Your task to perform on an android device: Go to network settings Image 0: 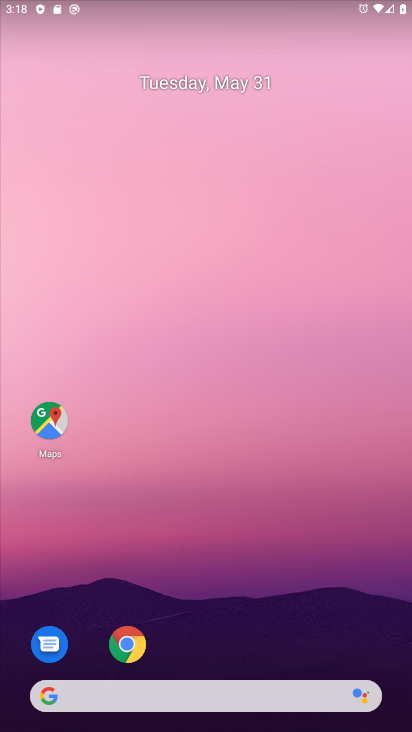
Step 0: drag from (357, 603) to (321, 129)
Your task to perform on an android device: Go to network settings Image 1: 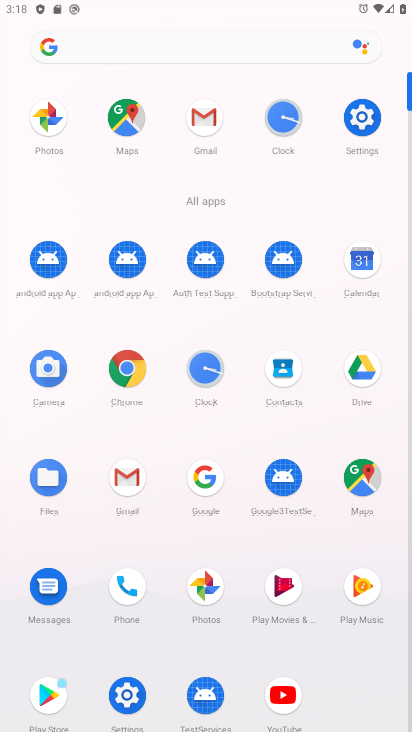
Step 1: click (358, 128)
Your task to perform on an android device: Go to network settings Image 2: 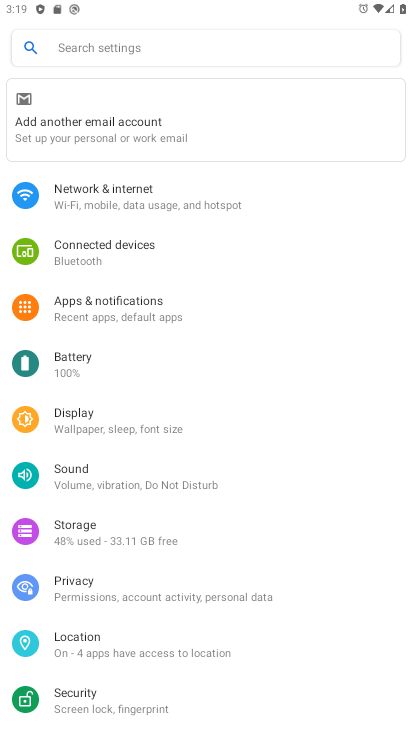
Step 2: drag from (148, 621) to (125, 495)
Your task to perform on an android device: Go to network settings Image 3: 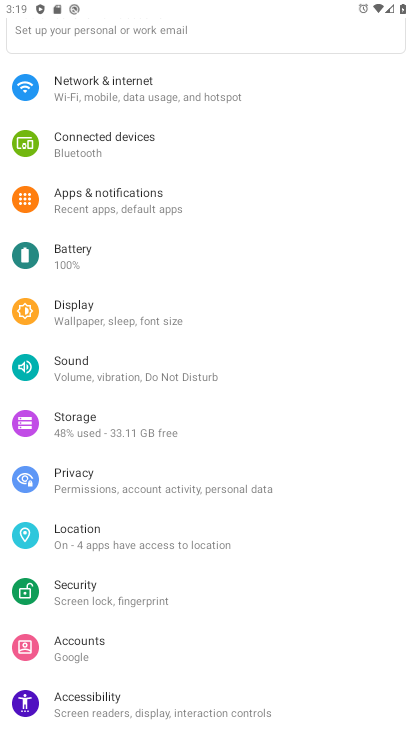
Step 3: click (156, 99)
Your task to perform on an android device: Go to network settings Image 4: 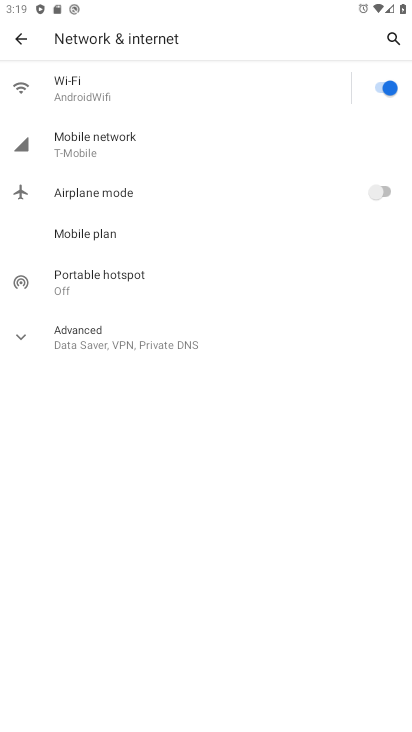
Step 4: task complete